Your task to perform on an android device: Do I have any events today? Image 0: 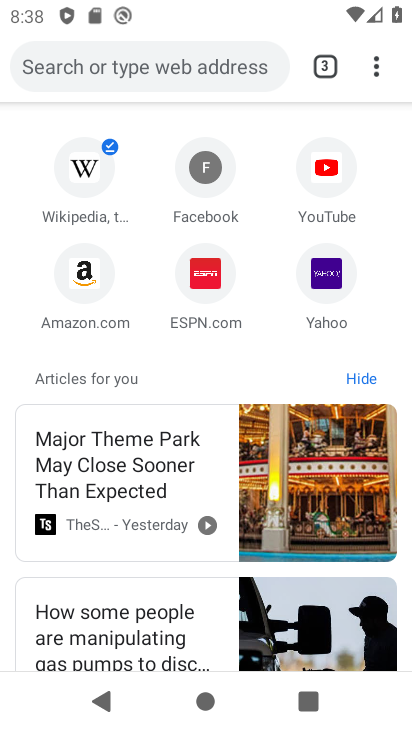
Step 0: press home button
Your task to perform on an android device: Do I have any events today? Image 1: 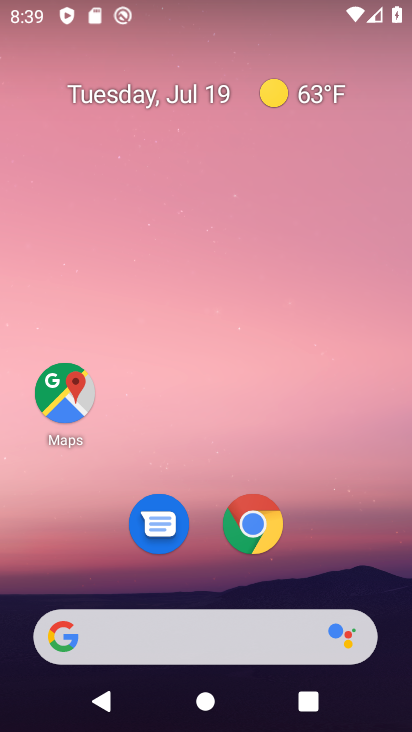
Step 1: drag from (129, 638) to (268, 222)
Your task to perform on an android device: Do I have any events today? Image 2: 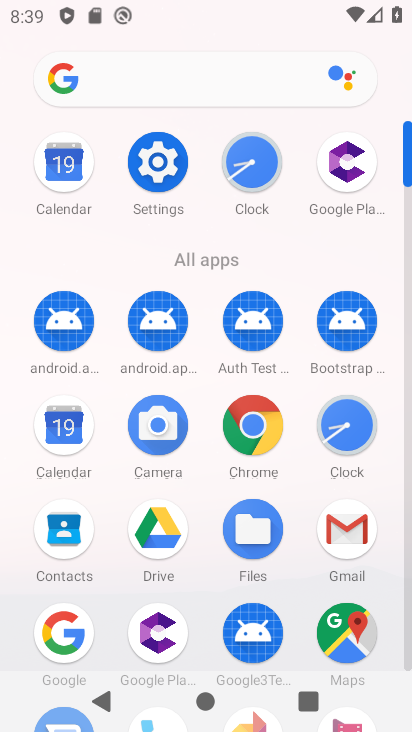
Step 2: click (71, 164)
Your task to perform on an android device: Do I have any events today? Image 3: 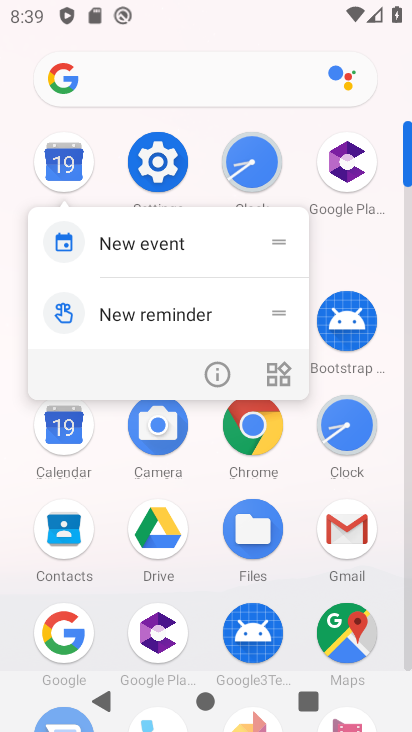
Step 3: click (59, 181)
Your task to perform on an android device: Do I have any events today? Image 4: 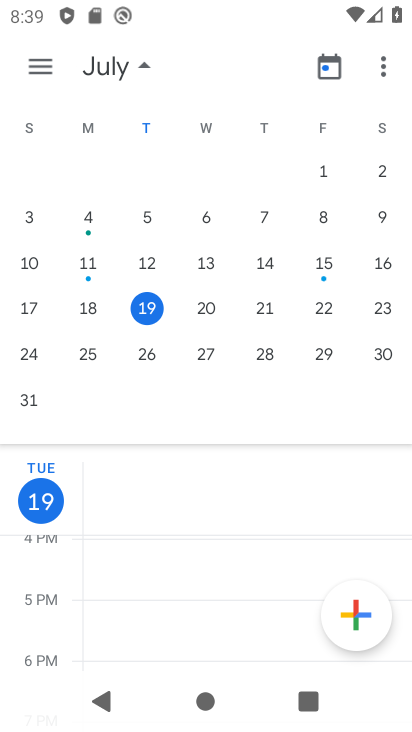
Step 4: click (148, 307)
Your task to perform on an android device: Do I have any events today? Image 5: 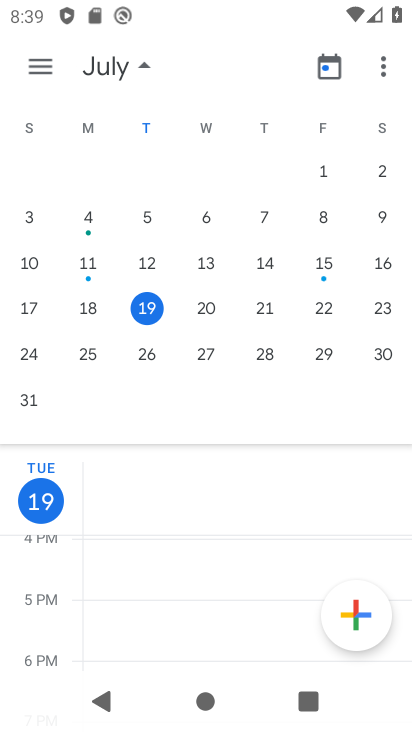
Step 5: click (38, 65)
Your task to perform on an android device: Do I have any events today? Image 6: 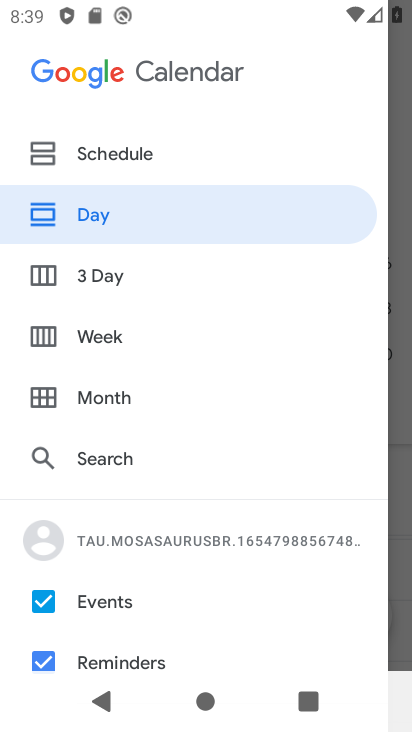
Step 6: click (174, 216)
Your task to perform on an android device: Do I have any events today? Image 7: 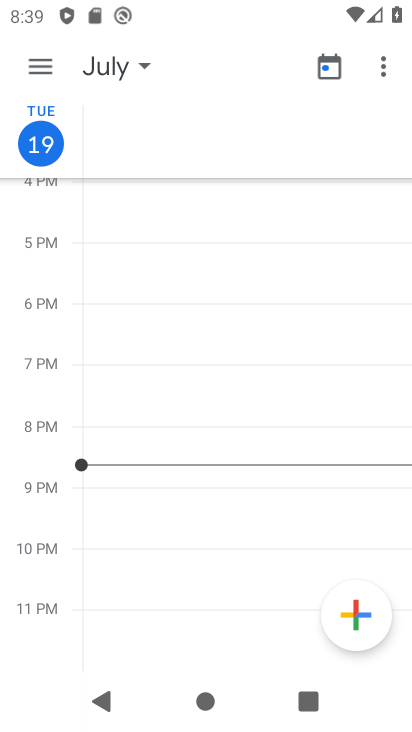
Step 7: click (45, 65)
Your task to perform on an android device: Do I have any events today? Image 8: 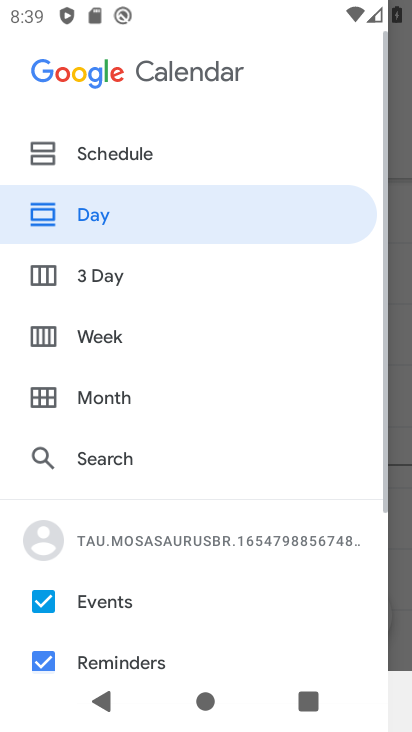
Step 8: click (104, 159)
Your task to perform on an android device: Do I have any events today? Image 9: 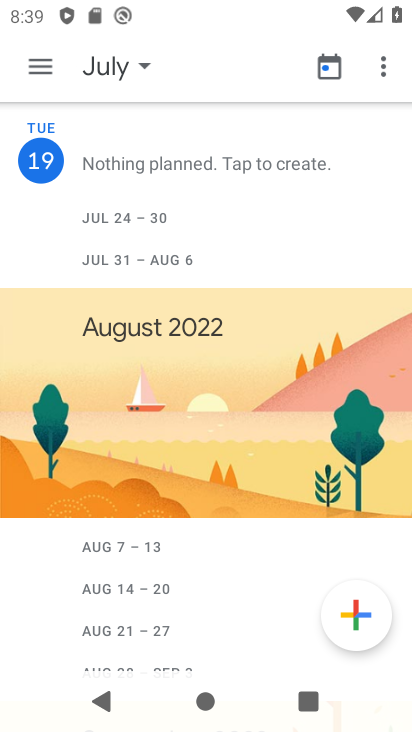
Step 9: task complete